Your task to perform on an android device: set the timer Image 0: 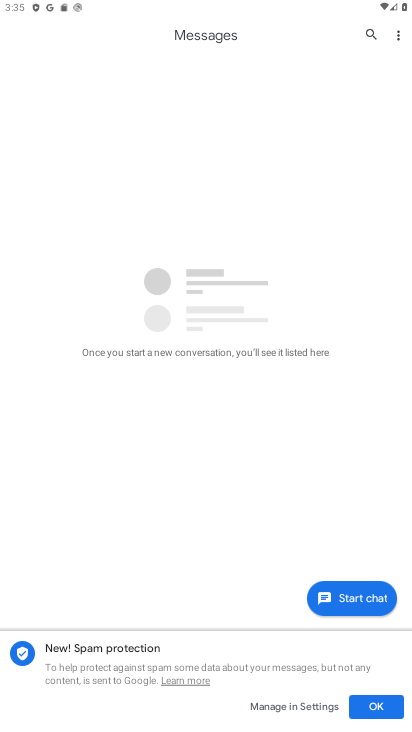
Step 0: press home button
Your task to perform on an android device: set the timer Image 1: 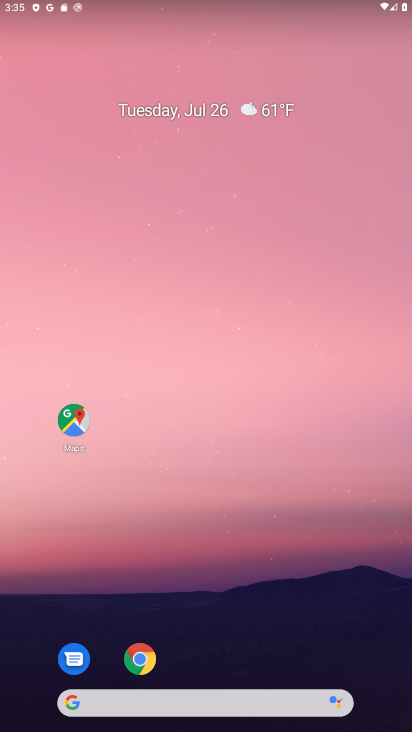
Step 1: drag from (237, 628) to (247, 0)
Your task to perform on an android device: set the timer Image 2: 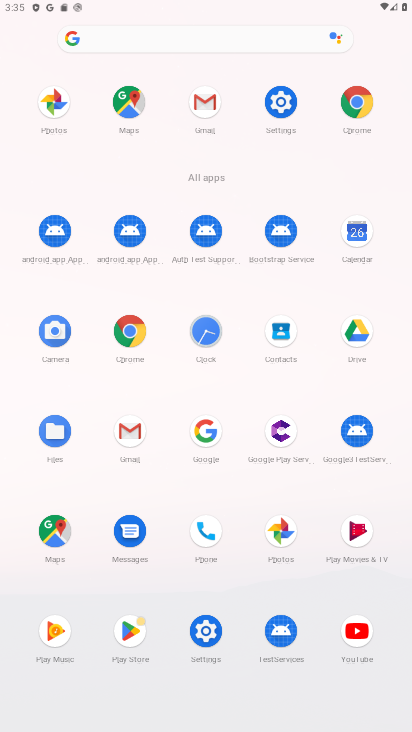
Step 2: click (207, 325)
Your task to perform on an android device: set the timer Image 3: 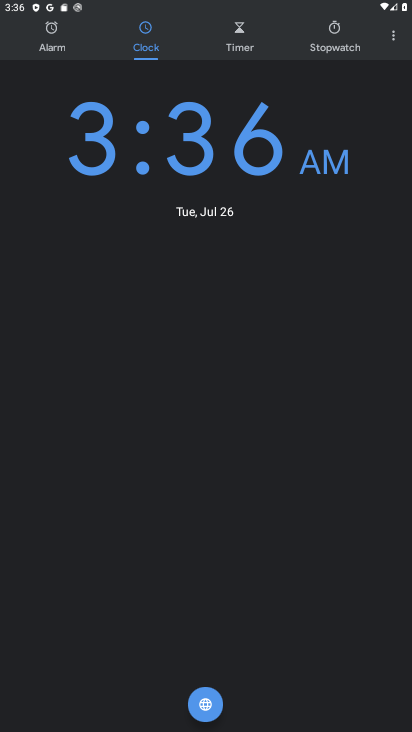
Step 3: click (251, 42)
Your task to perform on an android device: set the timer Image 4: 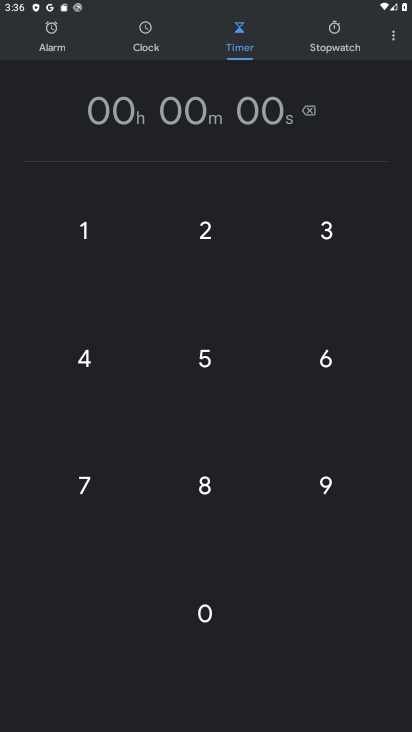
Step 4: click (204, 366)
Your task to perform on an android device: set the timer Image 5: 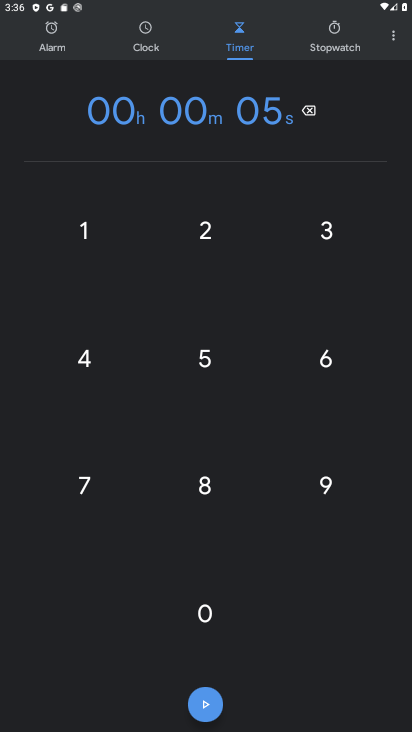
Step 5: task complete